Your task to perform on an android device: change keyboard looks Image 0: 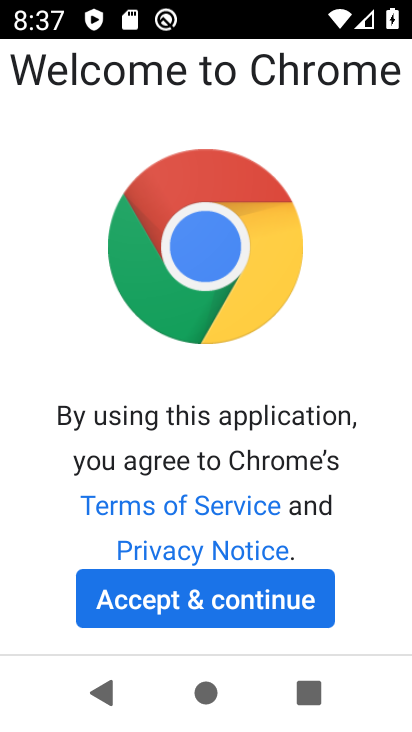
Step 0: press home button
Your task to perform on an android device: change keyboard looks Image 1: 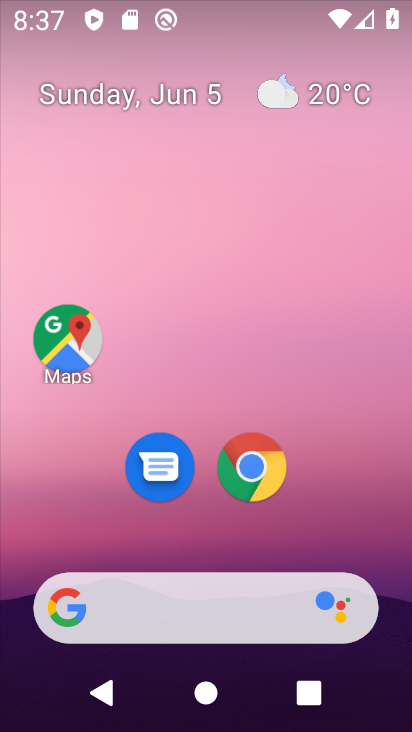
Step 1: drag from (195, 527) to (197, 0)
Your task to perform on an android device: change keyboard looks Image 2: 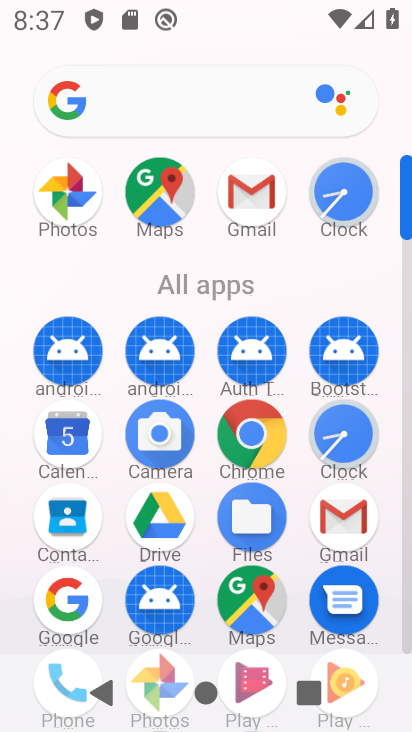
Step 2: drag from (215, 387) to (280, 107)
Your task to perform on an android device: change keyboard looks Image 3: 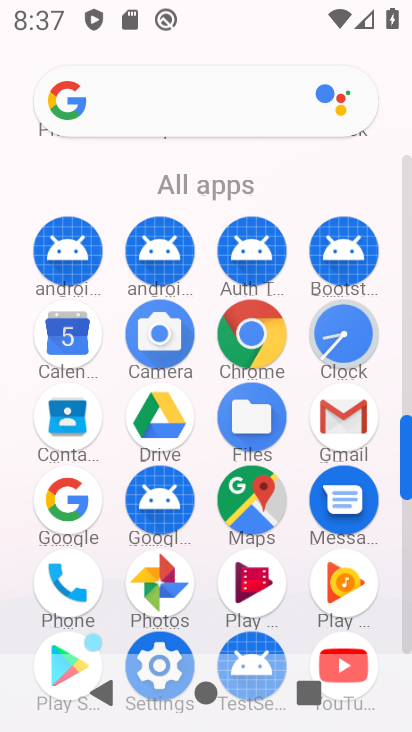
Step 3: drag from (193, 600) to (248, 203)
Your task to perform on an android device: change keyboard looks Image 4: 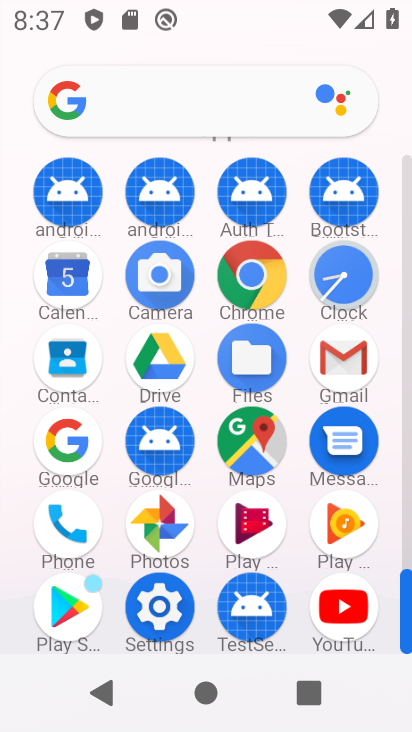
Step 4: click (161, 602)
Your task to perform on an android device: change keyboard looks Image 5: 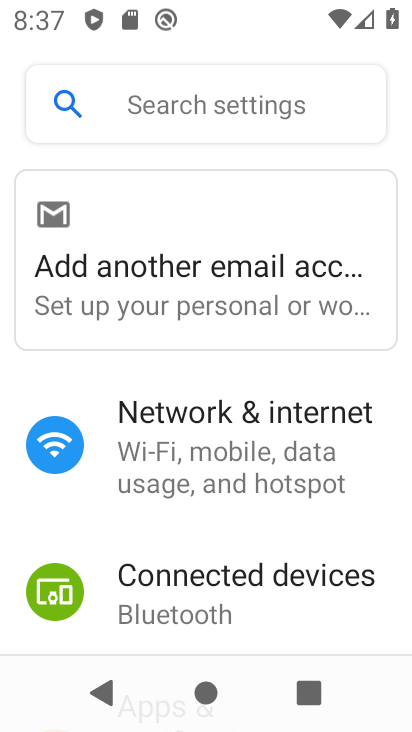
Step 5: drag from (225, 587) to (211, 48)
Your task to perform on an android device: change keyboard looks Image 6: 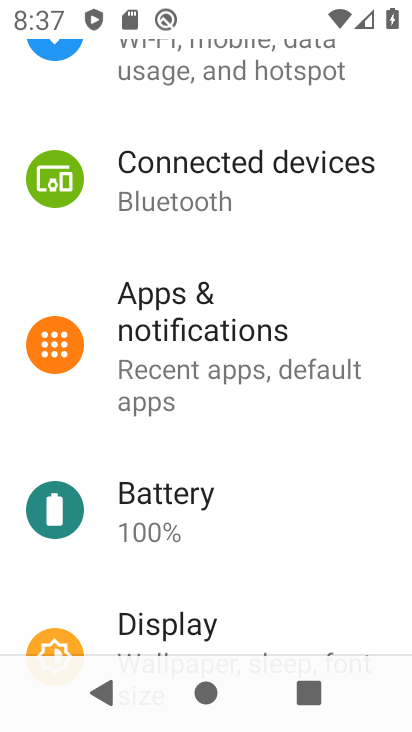
Step 6: drag from (155, 555) to (190, 2)
Your task to perform on an android device: change keyboard looks Image 7: 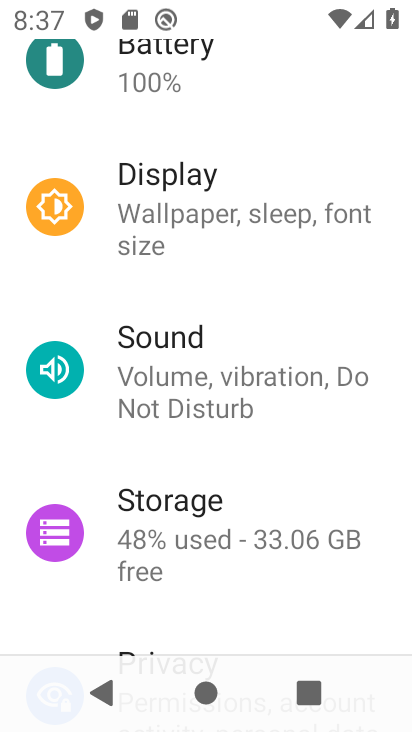
Step 7: drag from (242, 530) to (240, 14)
Your task to perform on an android device: change keyboard looks Image 8: 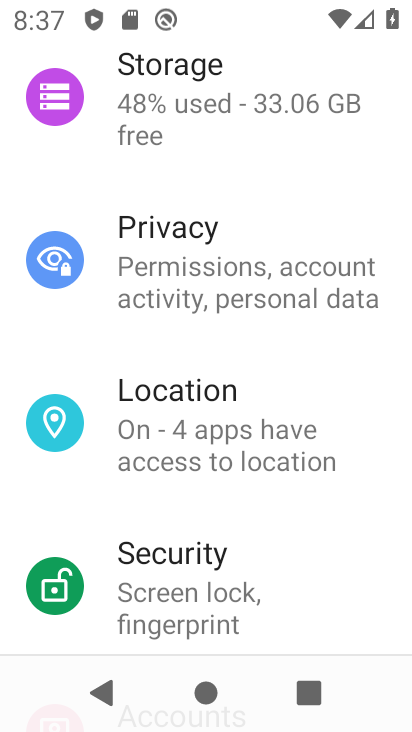
Step 8: drag from (222, 531) to (388, 29)
Your task to perform on an android device: change keyboard looks Image 9: 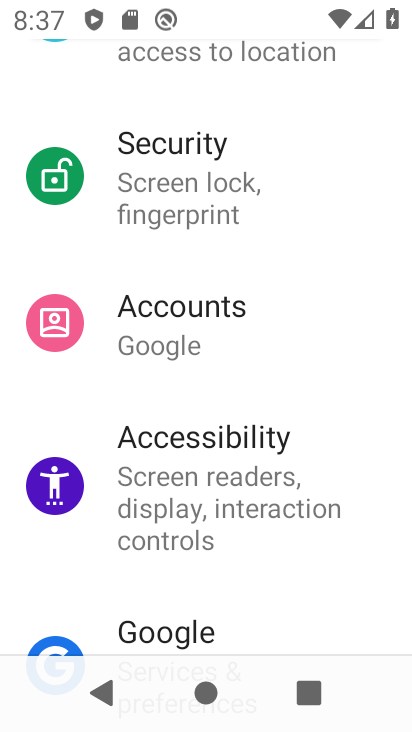
Step 9: drag from (203, 543) to (219, 43)
Your task to perform on an android device: change keyboard looks Image 10: 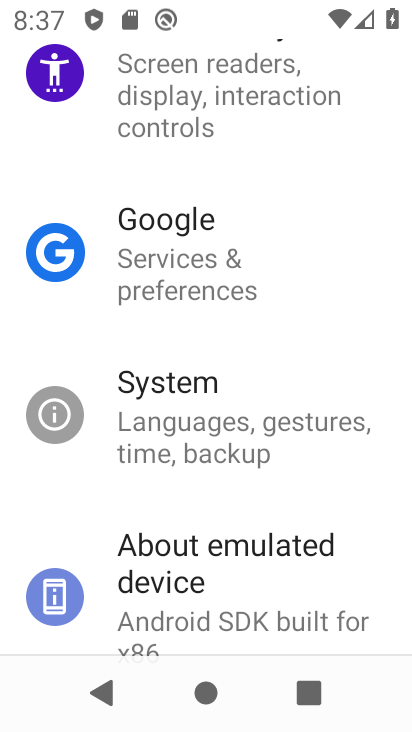
Step 10: click (228, 438)
Your task to perform on an android device: change keyboard looks Image 11: 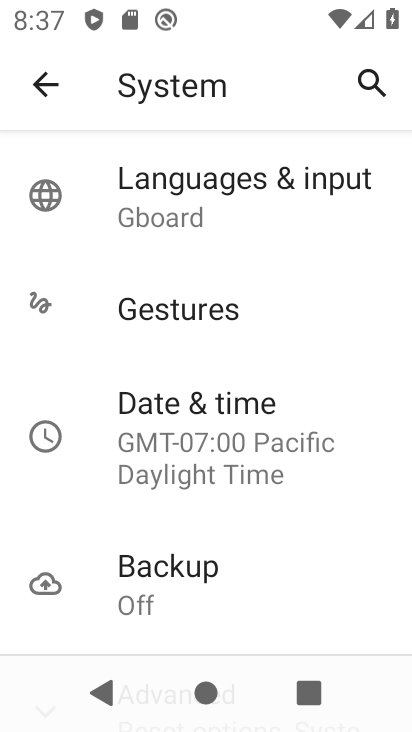
Step 11: click (169, 209)
Your task to perform on an android device: change keyboard looks Image 12: 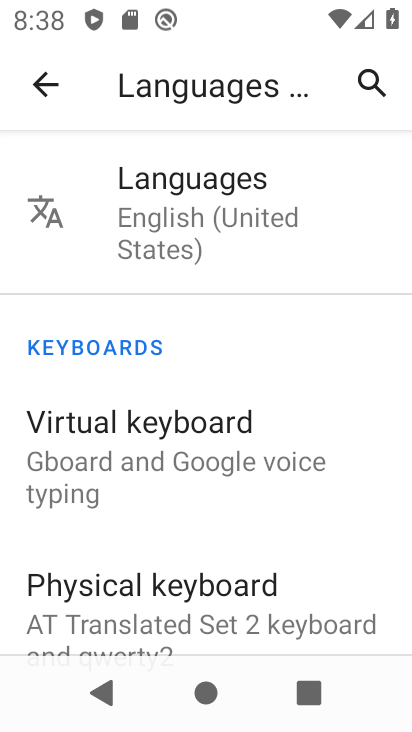
Step 12: click (69, 446)
Your task to perform on an android device: change keyboard looks Image 13: 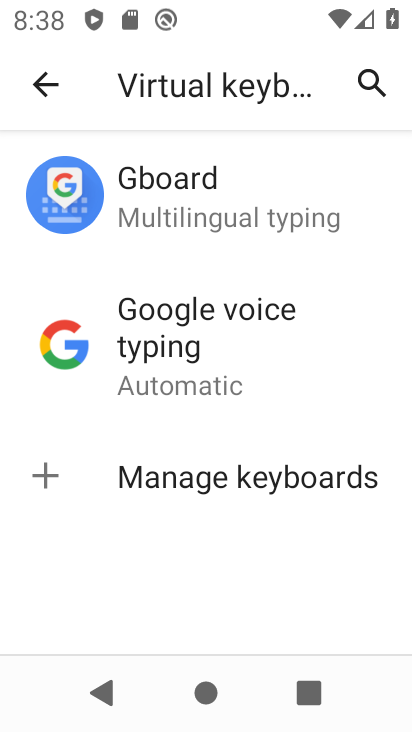
Step 13: click (157, 187)
Your task to perform on an android device: change keyboard looks Image 14: 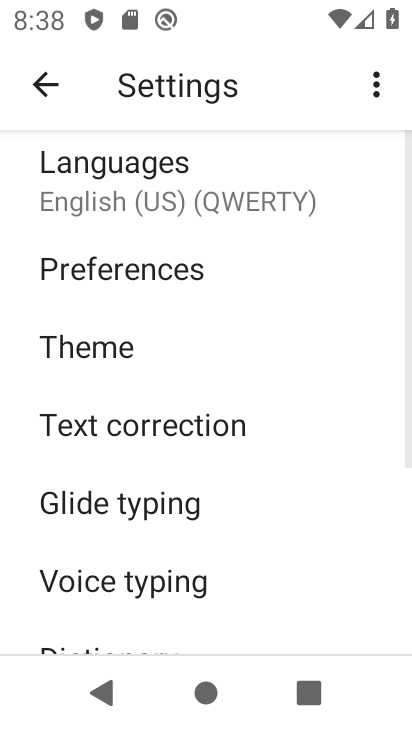
Step 14: click (87, 345)
Your task to perform on an android device: change keyboard looks Image 15: 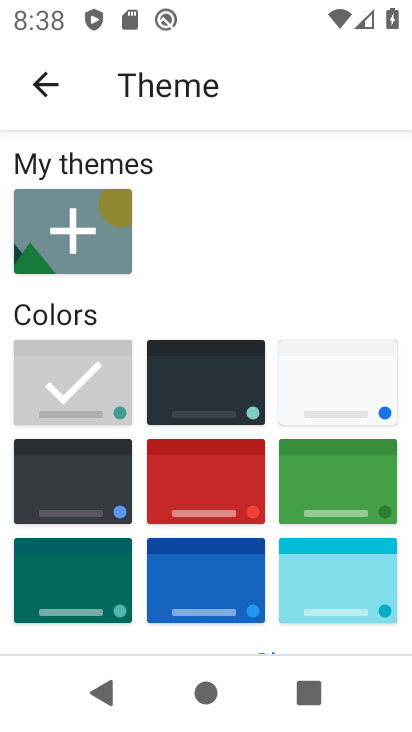
Step 15: click (304, 582)
Your task to perform on an android device: change keyboard looks Image 16: 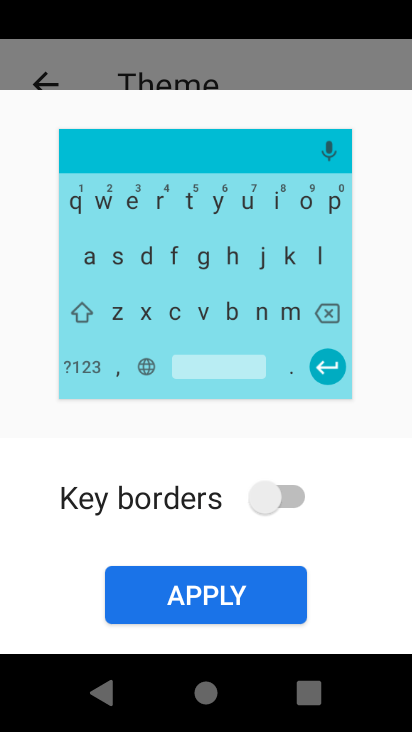
Step 16: click (232, 582)
Your task to perform on an android device: change keyboard looks Image 17: 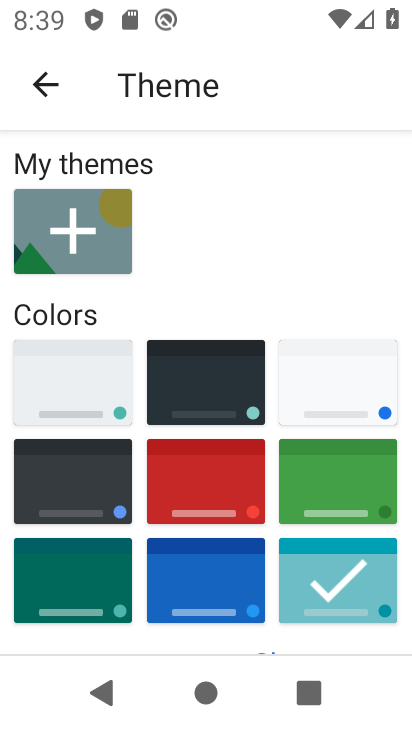
Step 17: task complete